Your task to perform on an android device: Open battery settings Image 0: 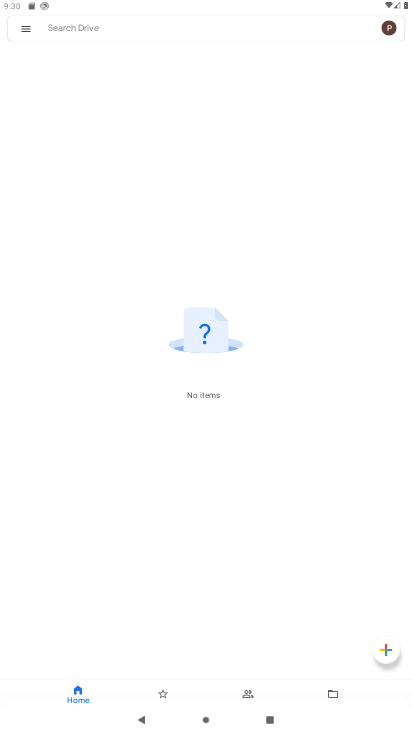
Step 0: press home button
Your task to perform on an android device: Open battery settings Image 1: 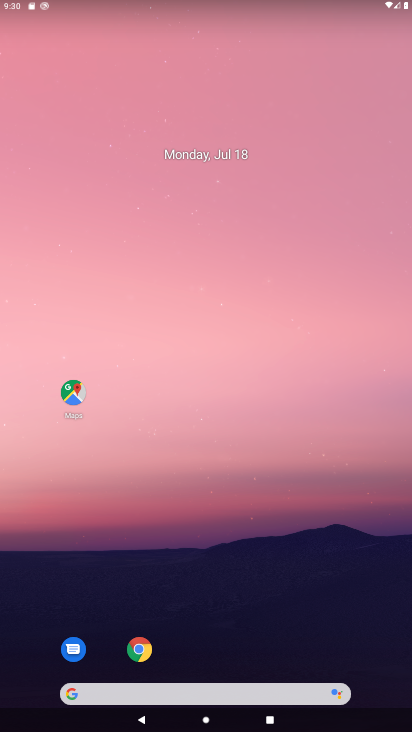
Step 1: drag from (251, 636) to (234, 56)
Your task to perform on an android device: Open battery settings Image 2: 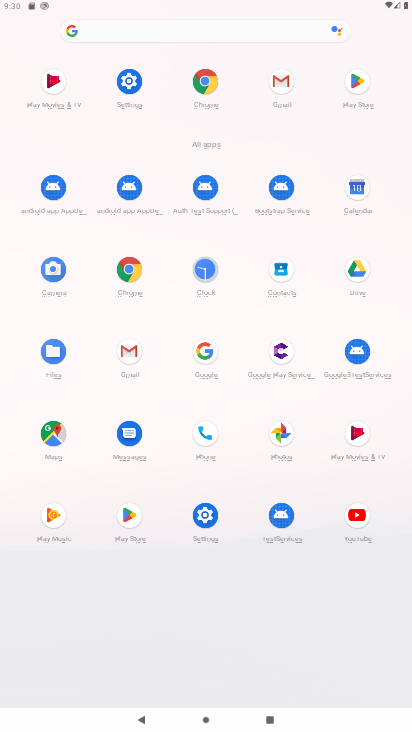
Step 2: click (133, 81)
Your task to perform on an android device: Open battery settings Image 3: 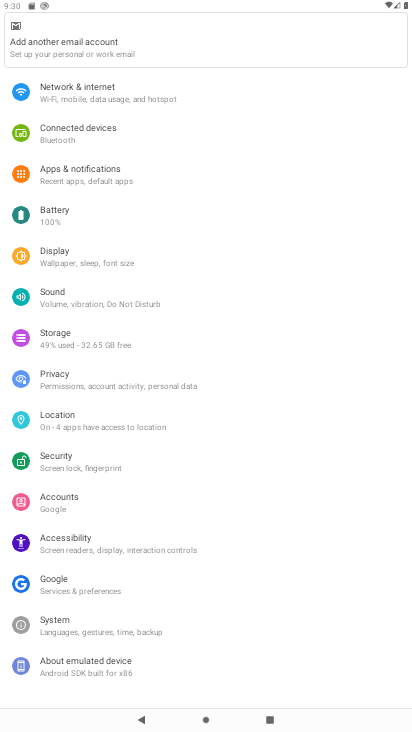
Step 3: click (53, 216)
Your task to perform on an android device: Open battery settings Image 4: 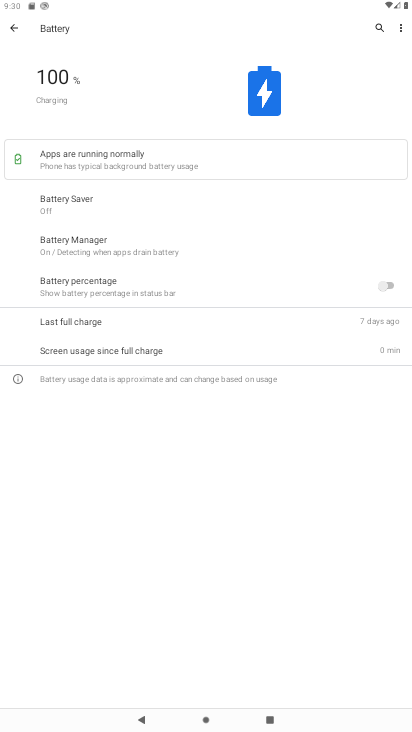
Step 4: task complete